Your task to perform on an android device: visit the assistant section in the google photos Image 0: 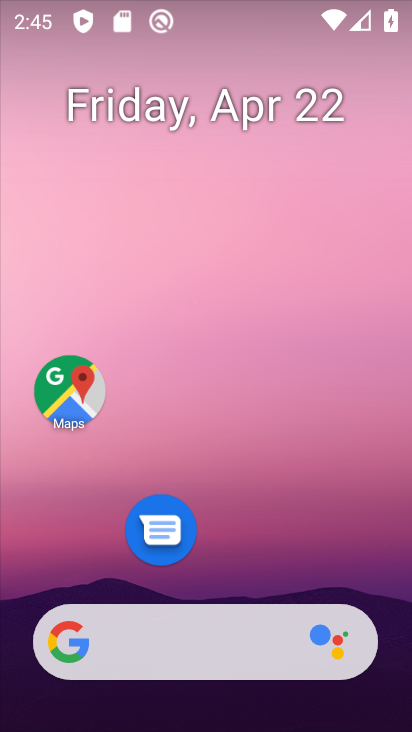
Step 0: drag from (256, 542) to (248, 3)
Your task to perform on an android device: visit the assistant section in the google photos Image 1: 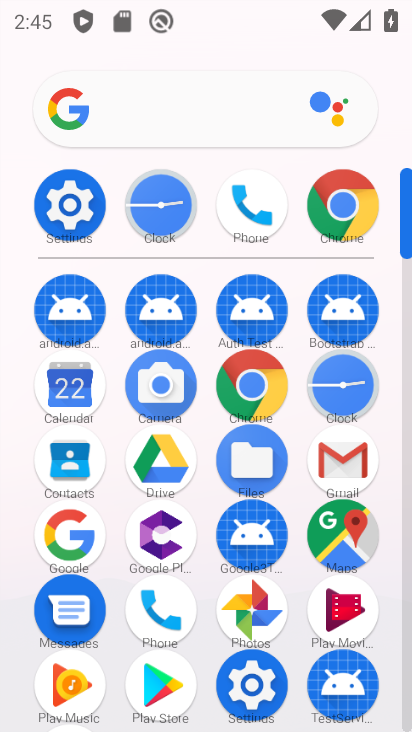
Step 1: click (251, 600)
Your task to perform on an android device: visit the assistant section in the google photos Image 2: 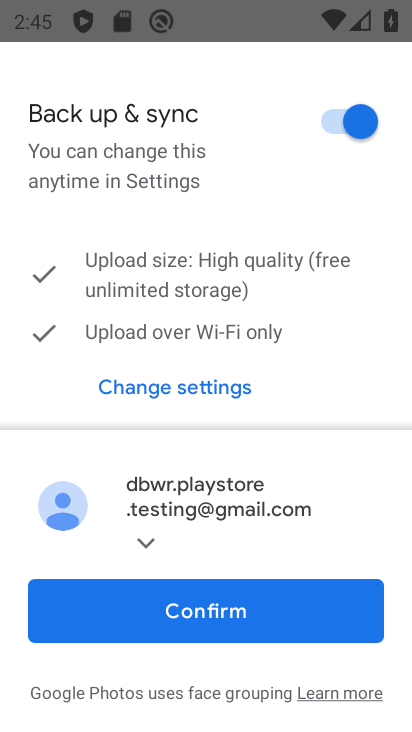
Step 2: click (184, 618)
Your task to perform on an android device: visit the assistant section in the google photos Image 3: 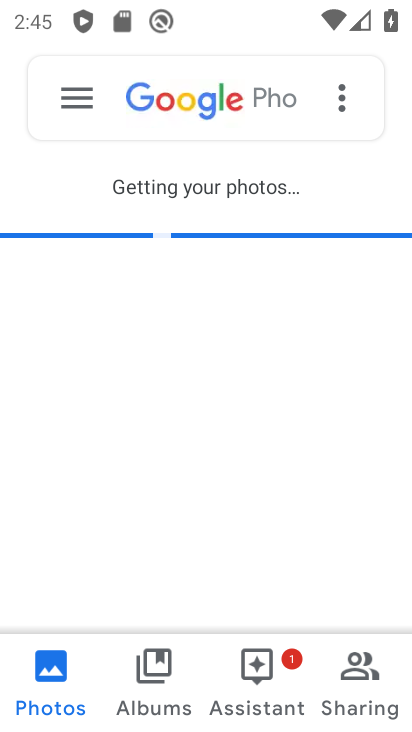
Step 3: click (246, 671)
Your task to perform on an android device: visit the assistant section in the google photos Image 4: 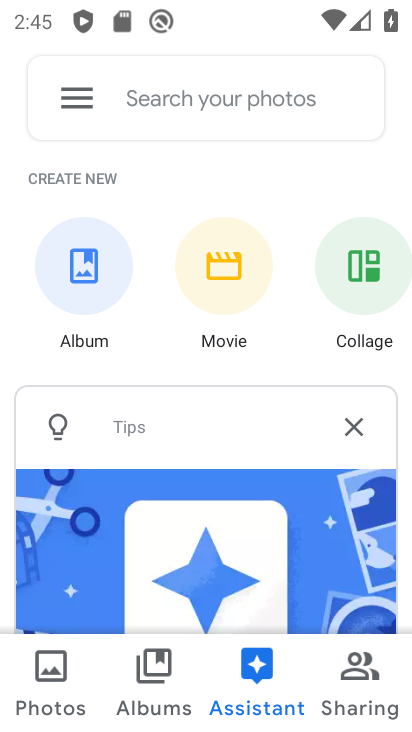
Step 4: task complete